Your task to perform on an android device: turn on notifications settings in the gmail app Image 0: 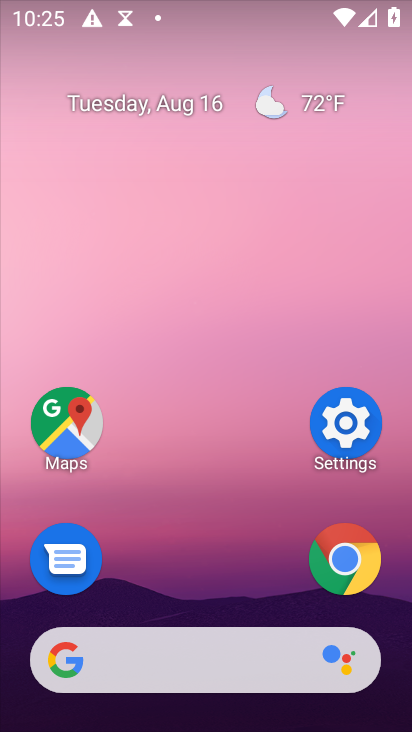
Step 0: press home button
Your task to perform on an android device: turn on notifications settings in the gmail app Image 1: 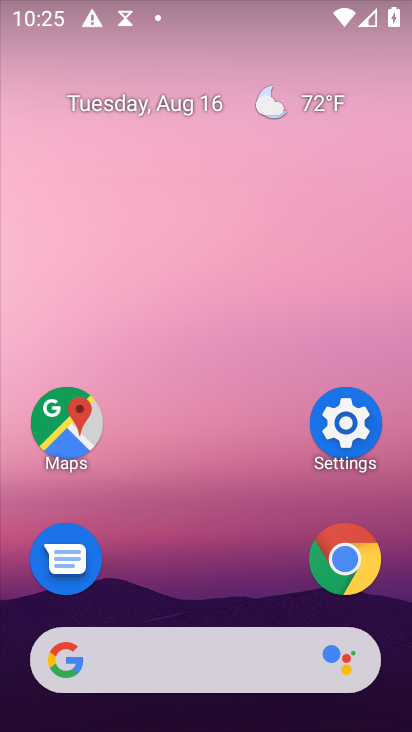
Step 1: drag from (201, 623) to (339, 20)
Your task to perform on an android device: turn on notifications settings in the gmail app Image 2: 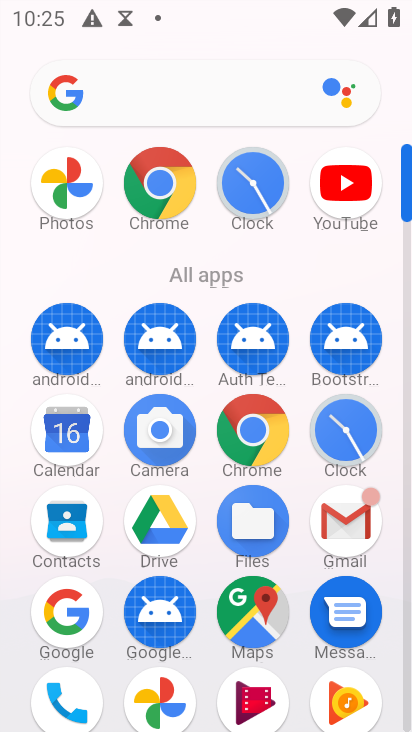
Step 2: click (342, 526)
Your task to perform on an android device: turn on notifications settings in the gmail app Image 3: 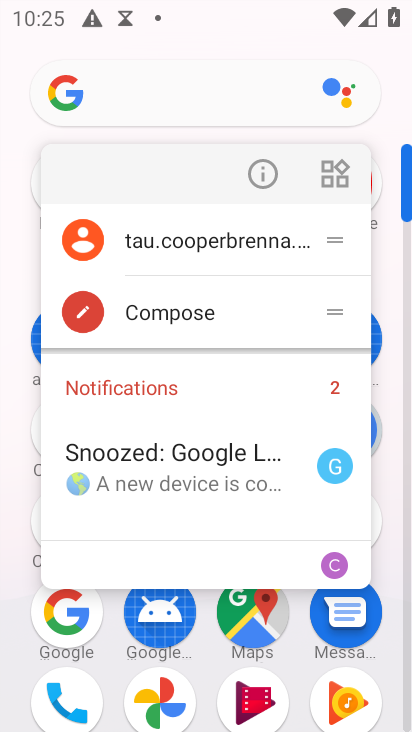
Step 3: click (375, 520)
Your task to perform on an android device: turn on notifications settings in the gmail app Image 4: 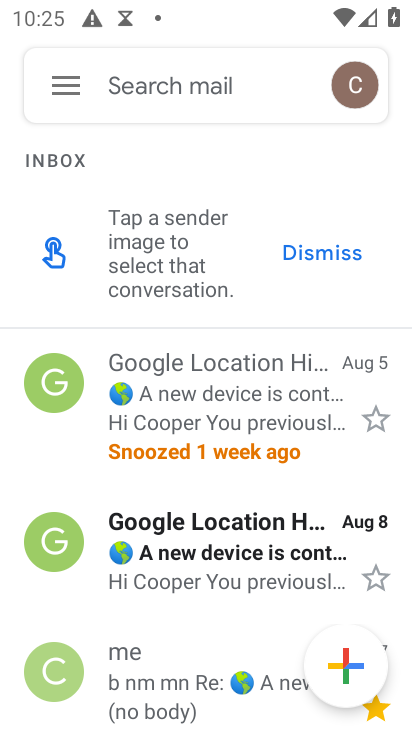
Step 4: click (66, 86)
Your task to perform on an android device: turn on notifications settings in the gmail app Image 5: 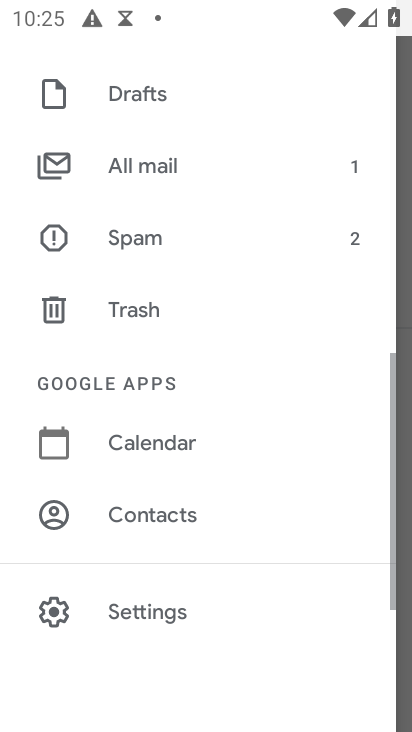
Step 5: click (149, 608)
Your task to perform on an android device: turn on notifications settings in the gmail app Image 6: 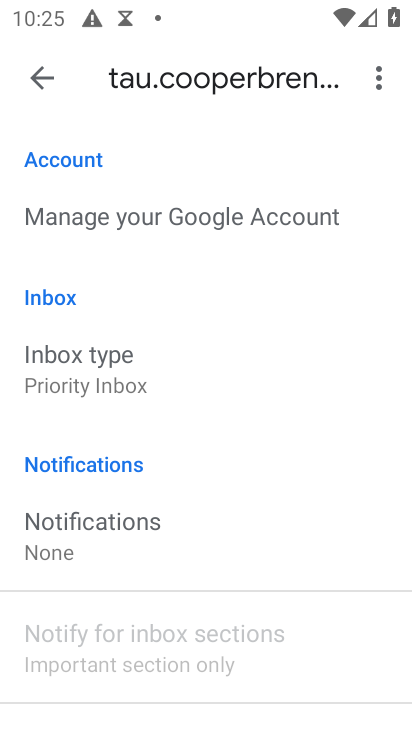
Step 6: click (107, 526)
Your task to perform on an android device: turn on notifications settings in the gmail app Image 7: 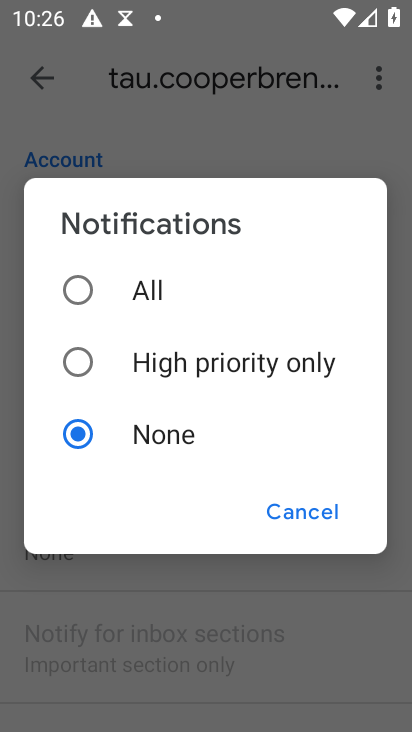
Step 7: click (79, 297)
Your task to perform on an android device: turn on notifications settings in the gmail app Image 8: 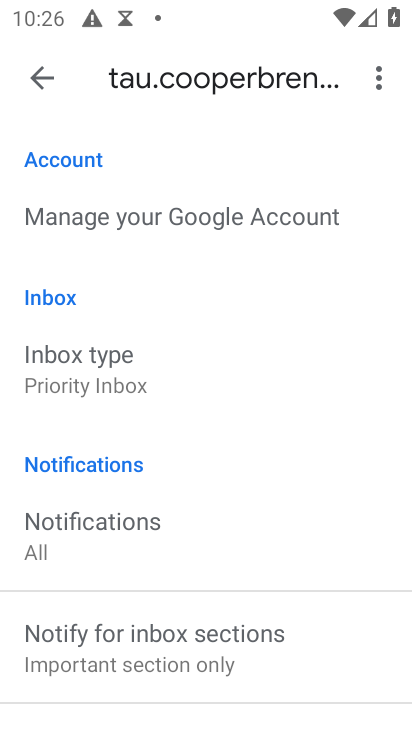
Step 8: task complete